Your task to perform on an android device: Show me popular videos on Youtube Image 0: 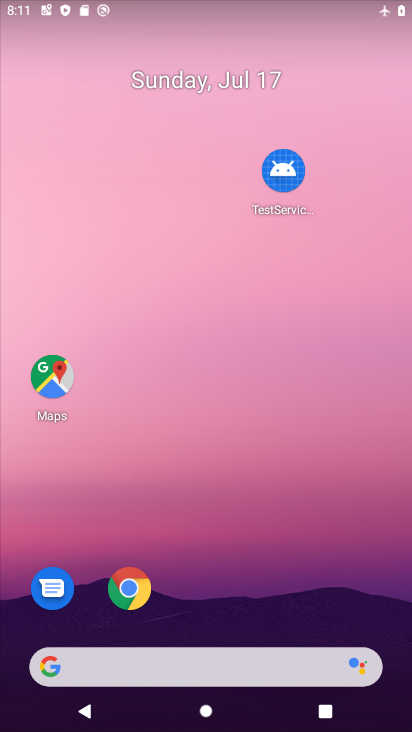
Step 0: drag from (226, 471) to (227, 212)
Your task to perform on an android device: Show me popular videos on Youtube Image 1: 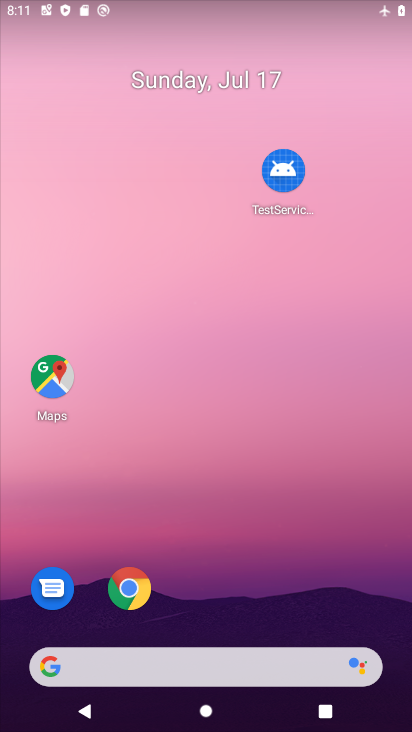
Step 1: drag from (195, 697) to (253, 48)
Your task to perform on an android device: Show me popular videos on Youtube Image 2: 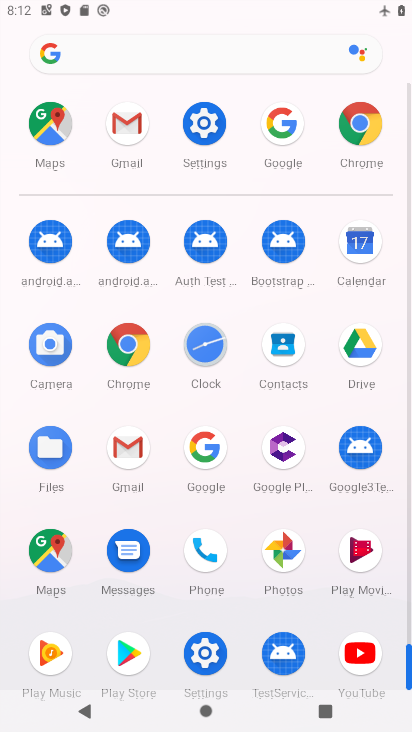
Step 2: click (360, 662)
Your task to perform on an android device: Show me popular videos on Youtube Image 3: 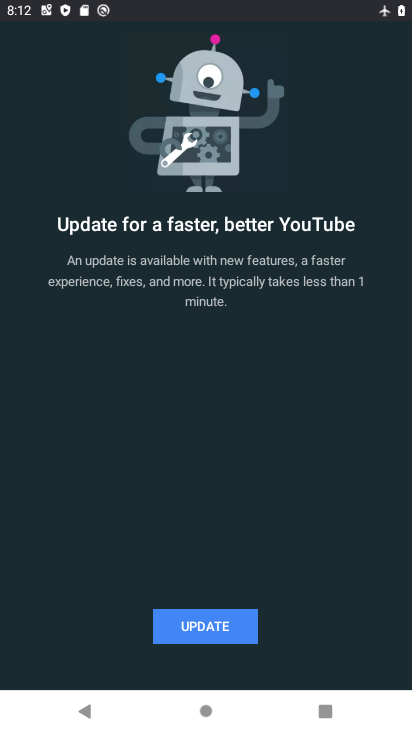
Step 3: click (206, 630)
Your task to perform on an android device: Show me popular videos on Youtube Image 4: 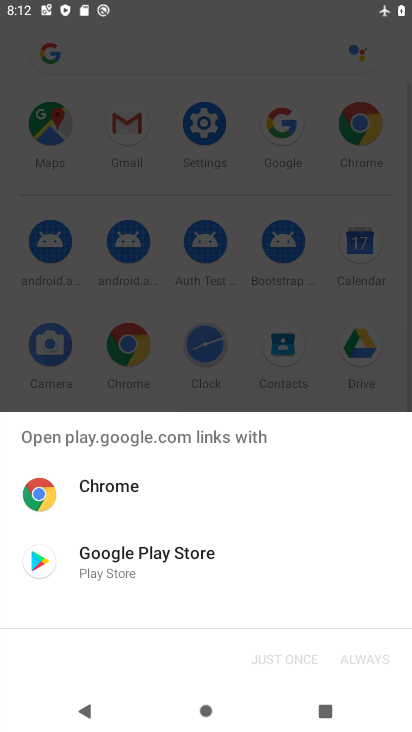
Step 4: click (191, 555)
Your task to perform on an android device: Show me popular videos on Youtube Image 5: 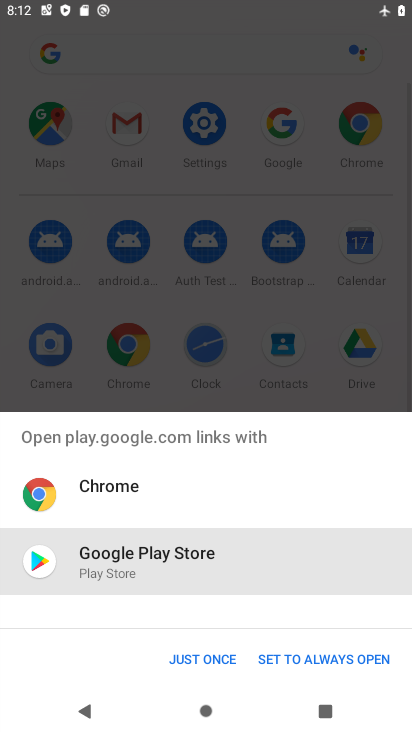
Step 5: click (202, 663)
Your task to perform on an android device: Show me popular videos on Youtube Image 6: 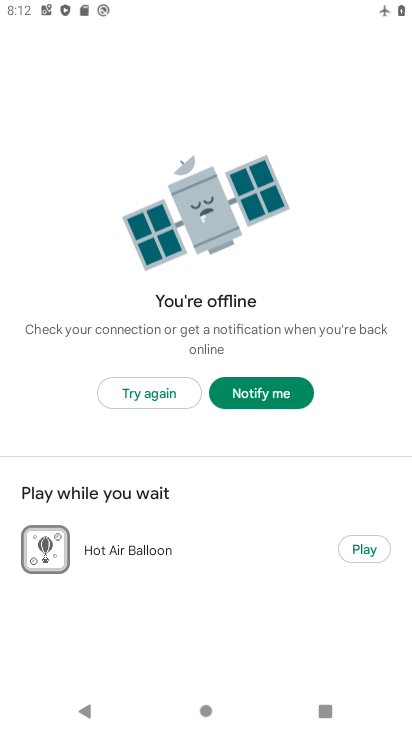
Step 6: click (161, 397)
Your task to perform on an android device: Show me popular videos on Youtube Image 7: 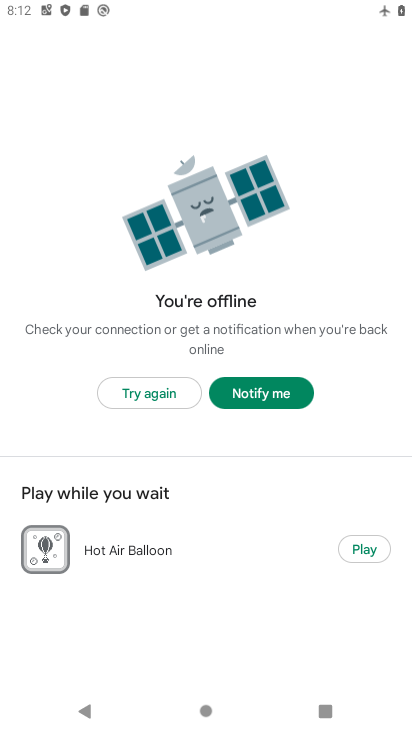
Step 7: click (162, 396)
Your task to perform on an android device: Show me popular videos on Youtube Image 8: 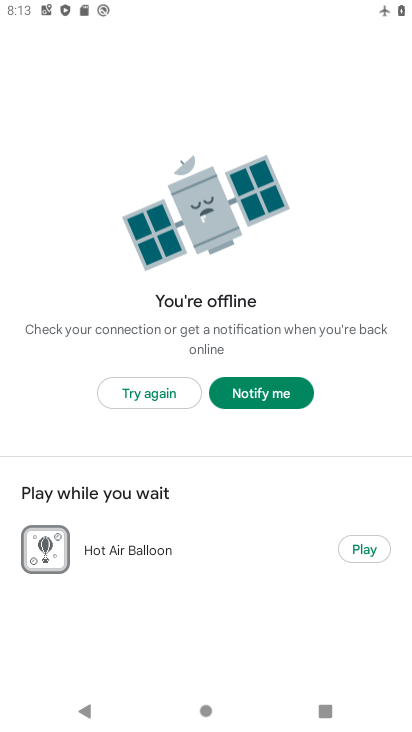
Step 8: click (147, 403)
Your task to perform on an android device: Show me popular videos on Youtube Image 9: 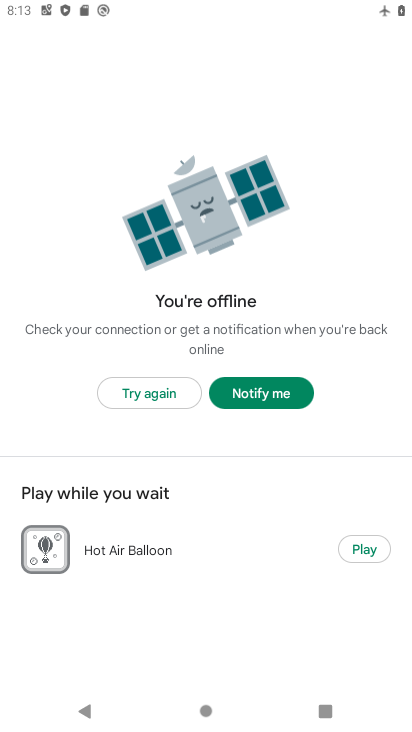
Step 9: task complete